Your task to perform on an android device: Open the calendar app, open the side menu, and click the "Day" option Image 0: 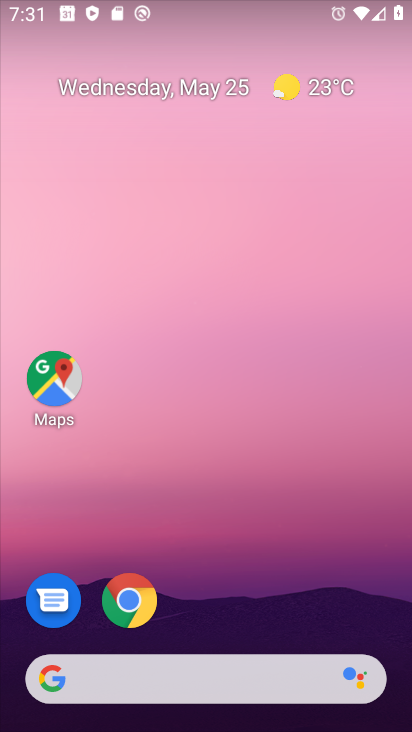
Step 0: drag from (254, 602) to (199, 80)
Your task to perform on an android device: Open the calendar app, open the side menu, and click the "Day" option Image 1: 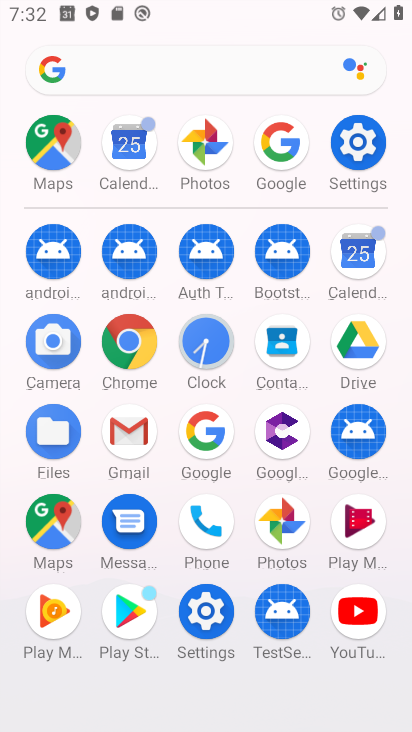
Step 1: click (359, 254)
Your task to perform on an android device: Open the calendar app, open the side menu, and click the "Day" option Image 2: 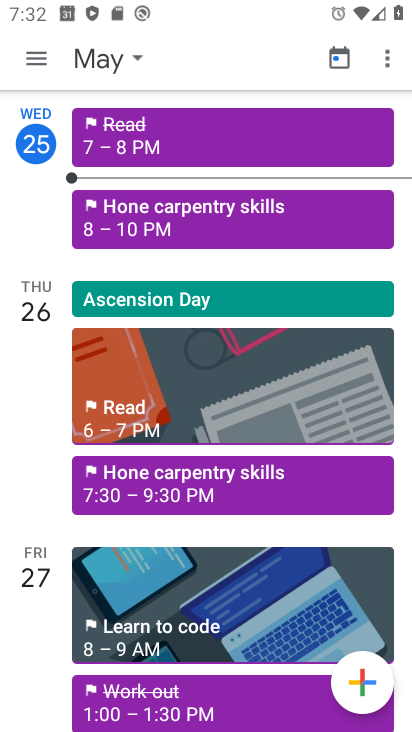
Step 2: click (40, 55)
Your task to perform on an android device: Open the calendar app, open the side menu, and click the "Day" option Image 3: 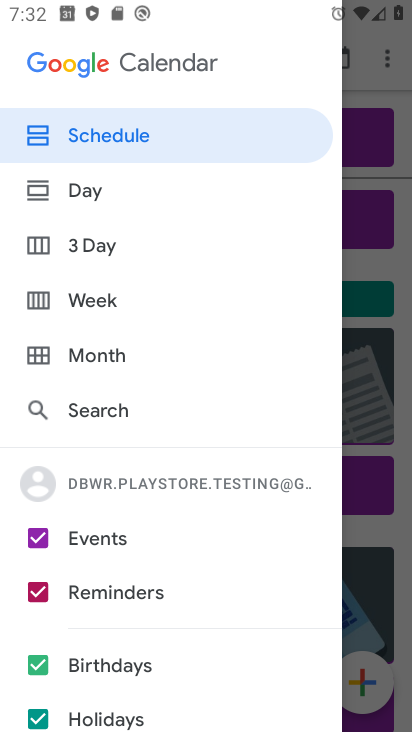
Step 3: click (66, 196)
Your task to perform on an android device: Open the calendar app, open the side menu, and click the "Day" option Image 4: 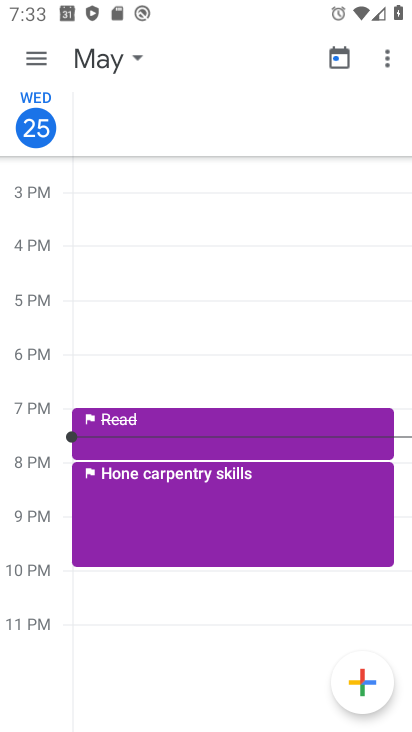
Step 4: task complete